Your task to perform on an android device: install app "VLC for Android" Image 0: 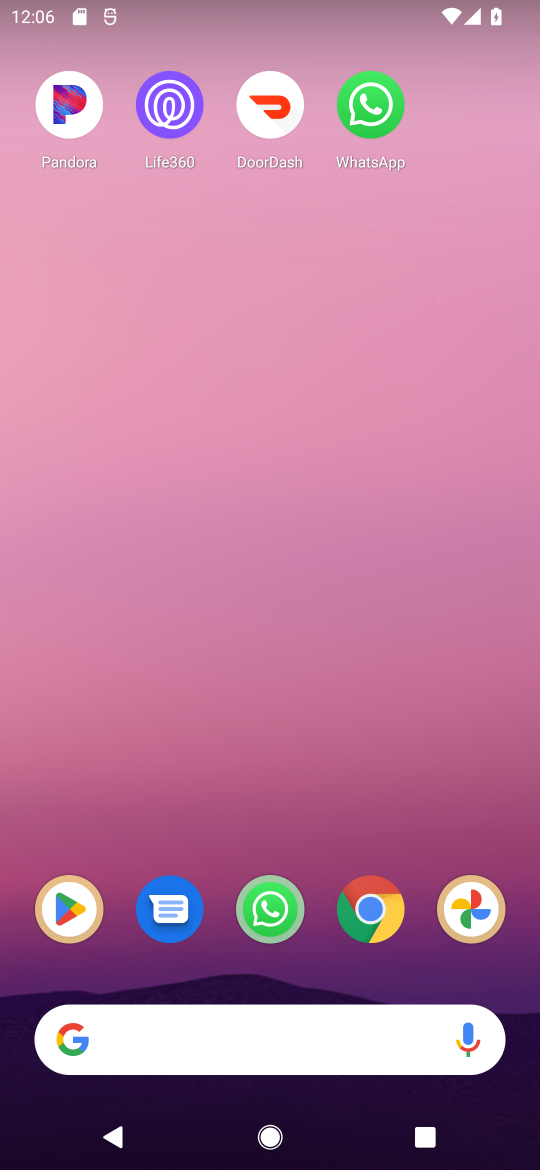
Step 0: press home button
Your task to perform on an android device: install app "VLC for Android" Image 1: 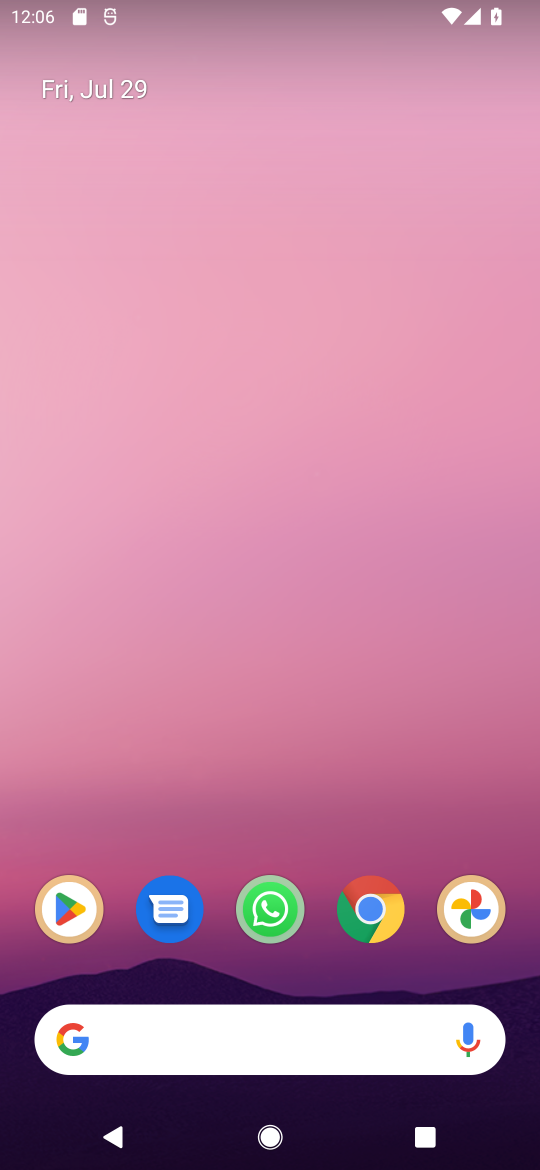
Step 1: click (291, 335)
Your task to perform on an android device: install app "VLC for Android" Image 2: 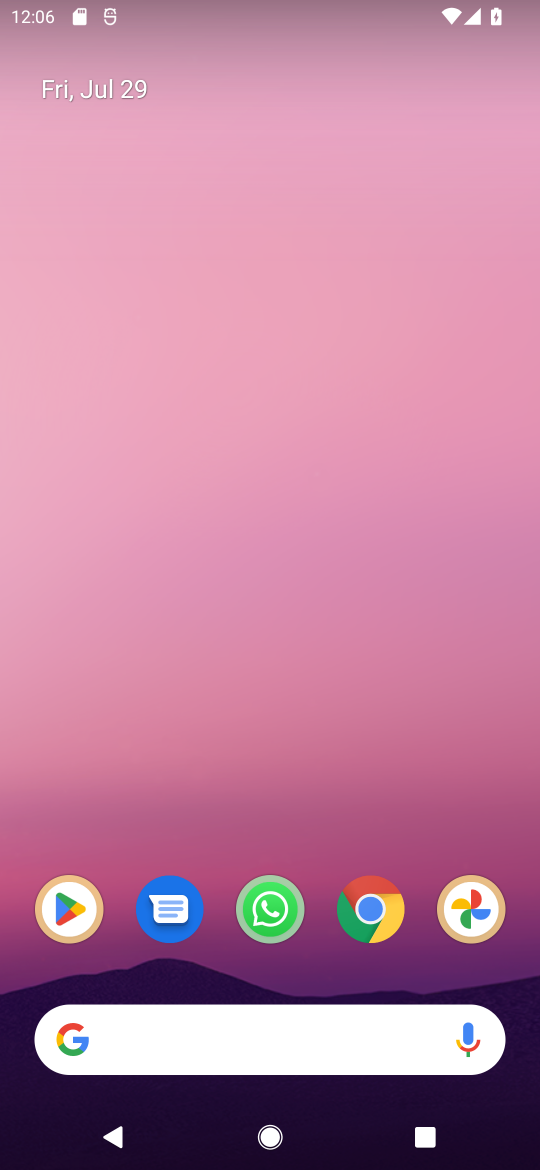
Step 2: click (60, 907)
Your task to perform on an android device: install app "VLC for Android" Image 3: 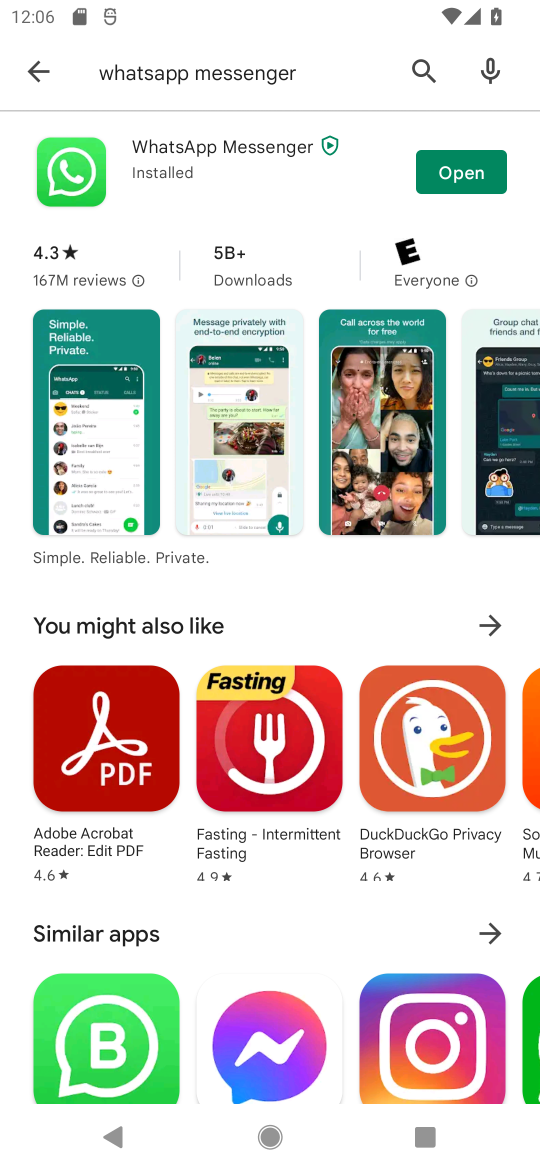
Step 3: click (415, 67)
Your task to perform on an android device: install app "VLC for Android" Image 4: 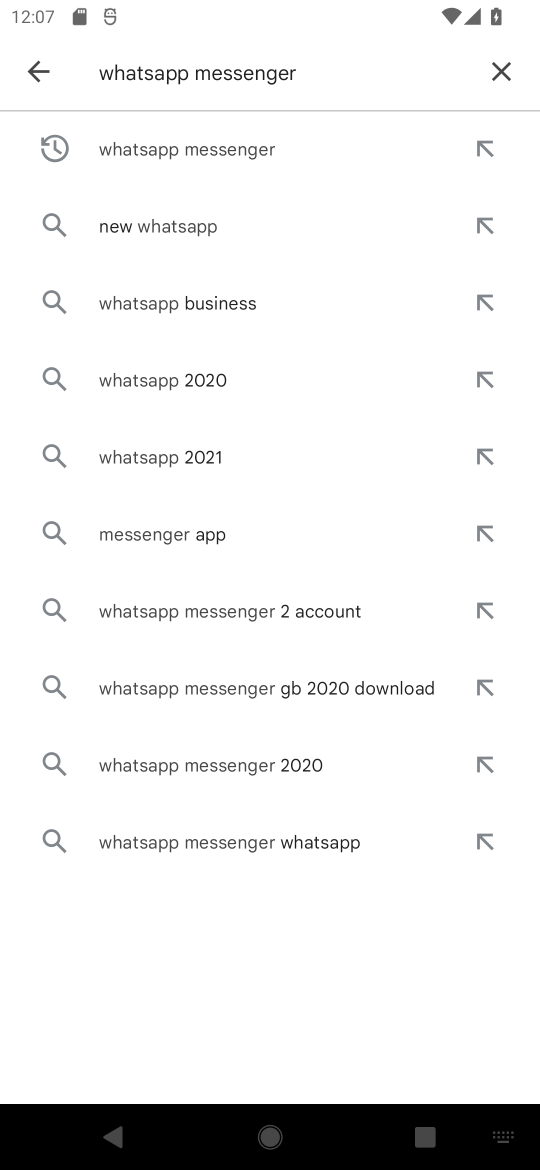
Step 4: click (488, 64)
Your task to perform on an android device: install app "VLC for Android" Image 5: 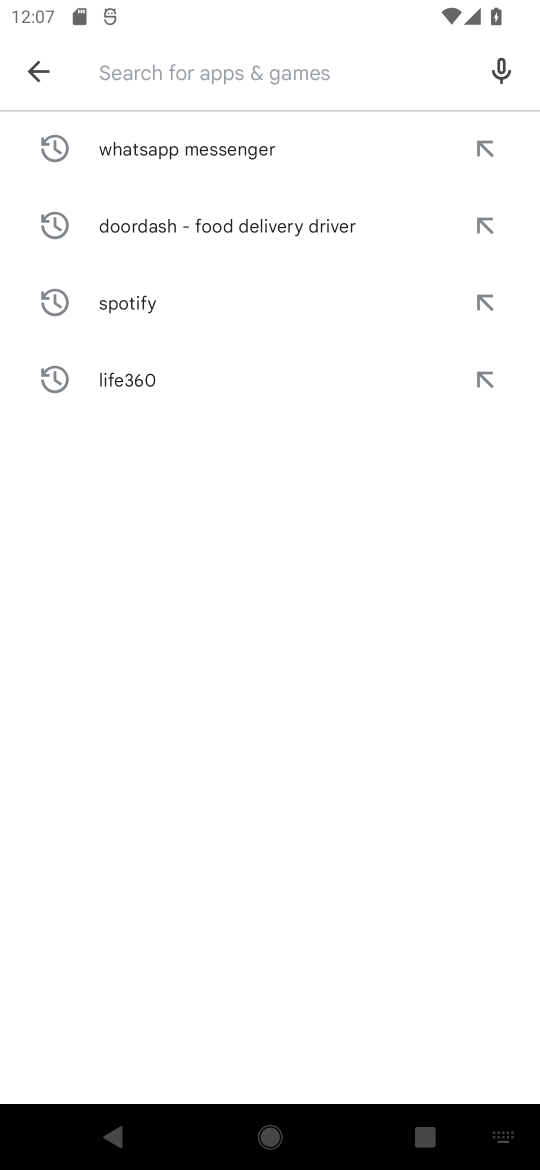
Step 5: type "VLC for android"
Your task to perform on an android device: install app "VLC for Android" Image 6: 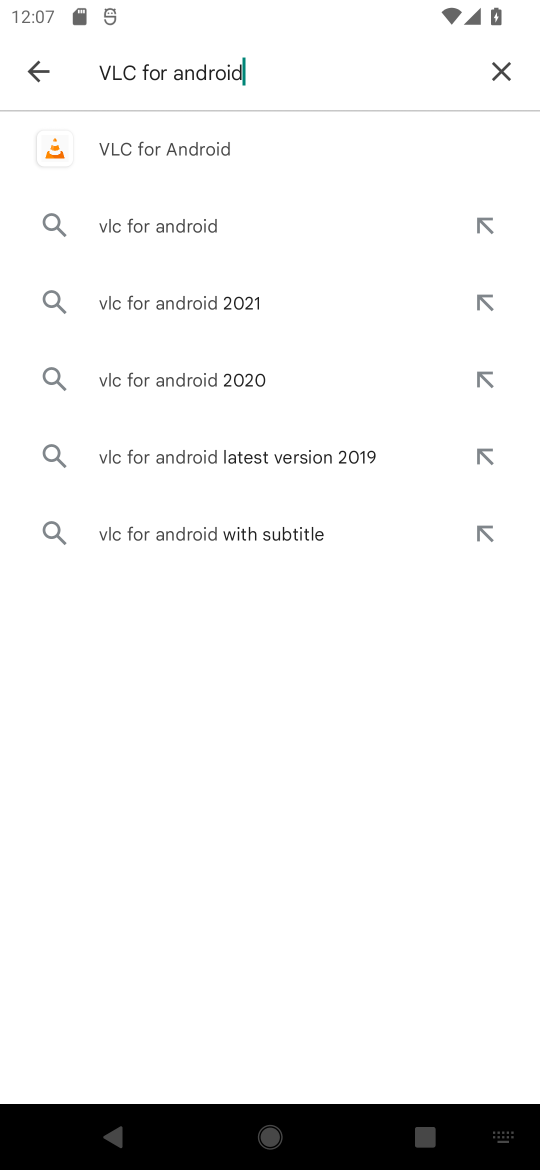
Step 6: click (106, 153)
Your task to perform on an android device: install app "VLC for Android" Image 7: 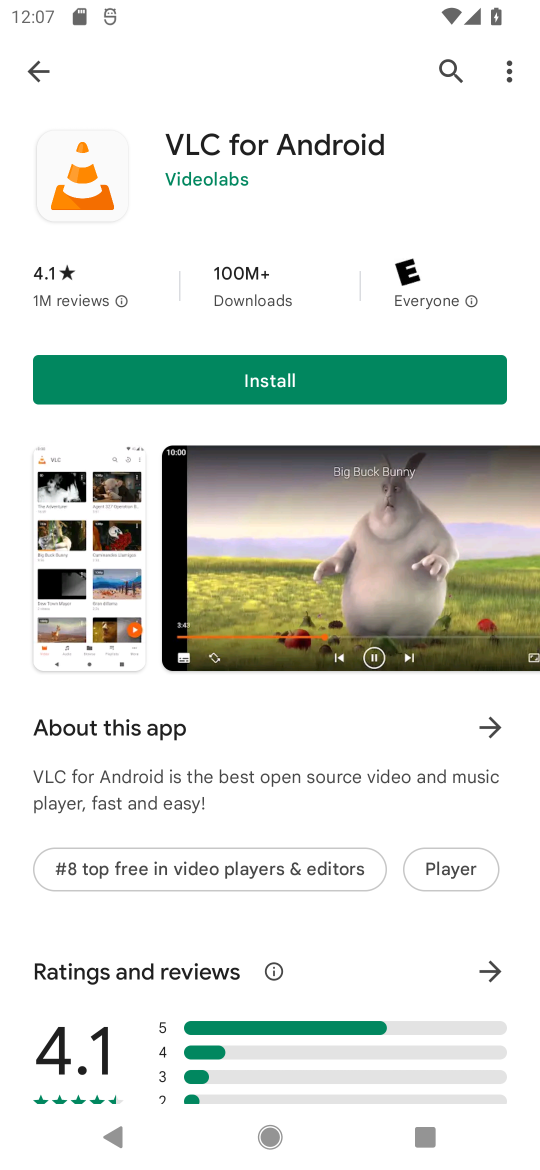
Step 7: click (201, 383)
Your task to perform on an android device: install app "VLC for Android" Image 8: 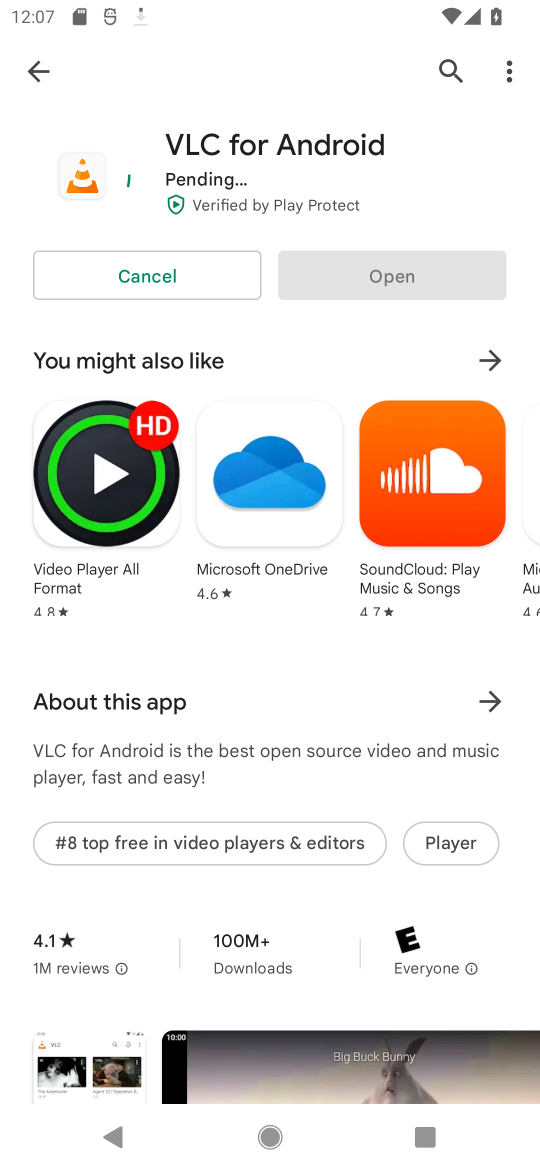
Step 8: click (295, 956)
Your task to perform on an android device: install app "VLC for Android" Image 9: 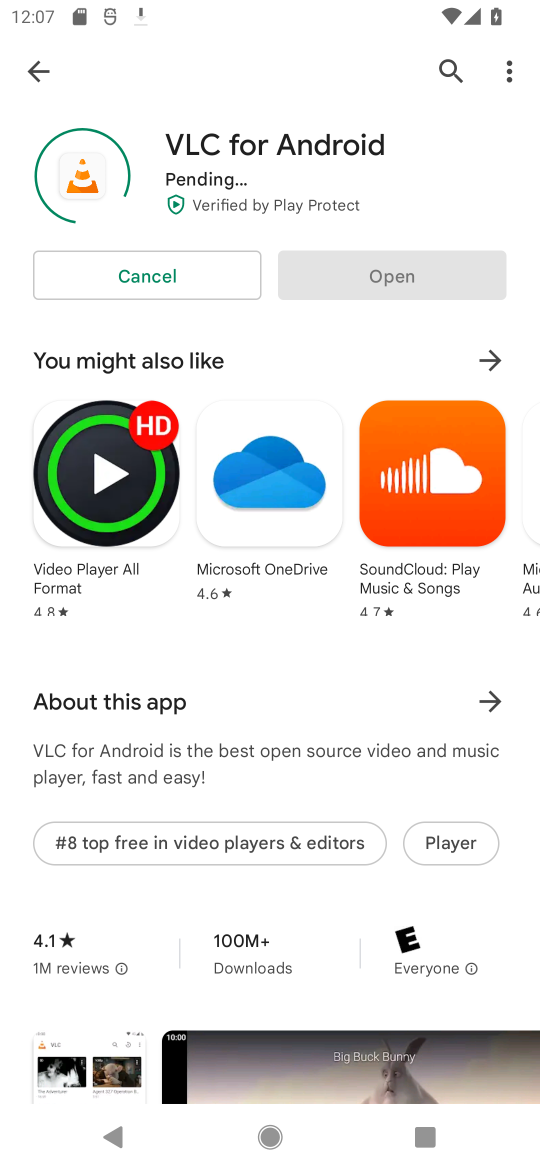
Step 9: task complete